Your task to perform on an android device: turn off translation in the chrome app Image 0: 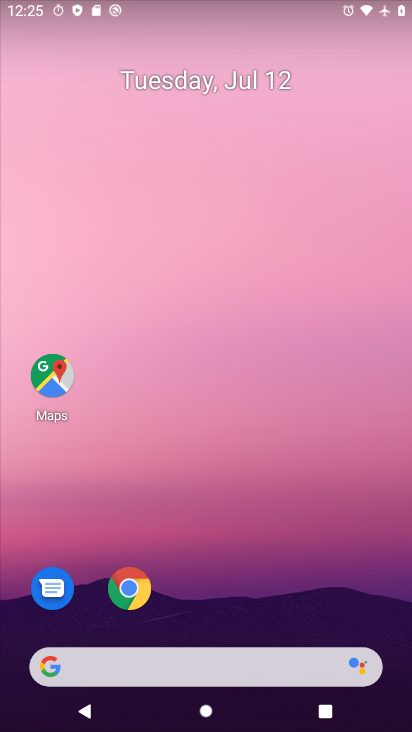
Step 0: press home button
Your task to perform on an android device: turn off translation in the chrome app Image 1: 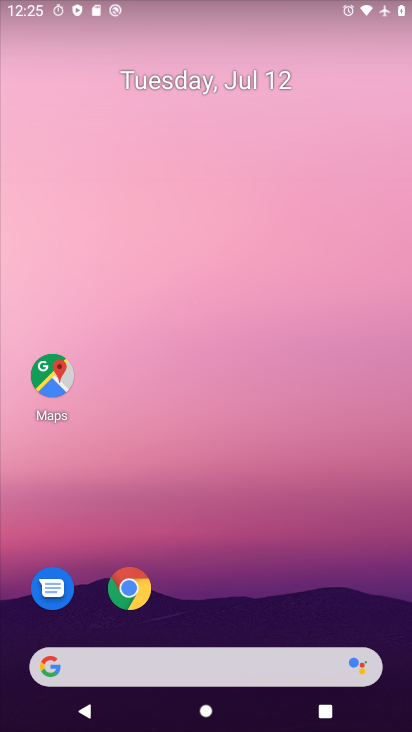
Step 1: click (128, 590)
Your task to perform on an android device: turn off translation in the chrome app Image 2: 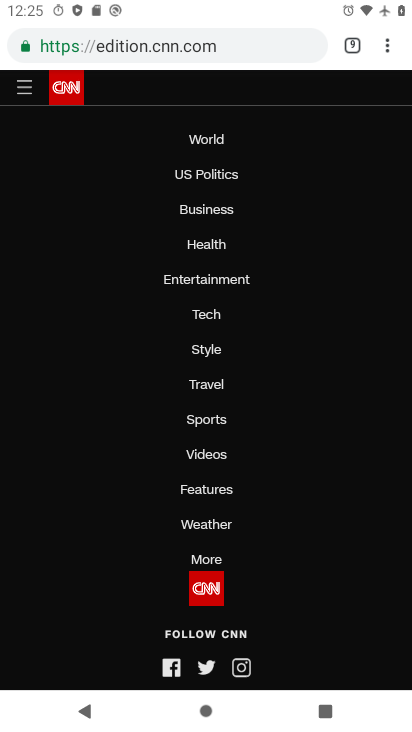
Step 2: drag from (386, 49) to (267, 544)
Your task to perform on an android device: turn off translation in the chrome app Image 3: 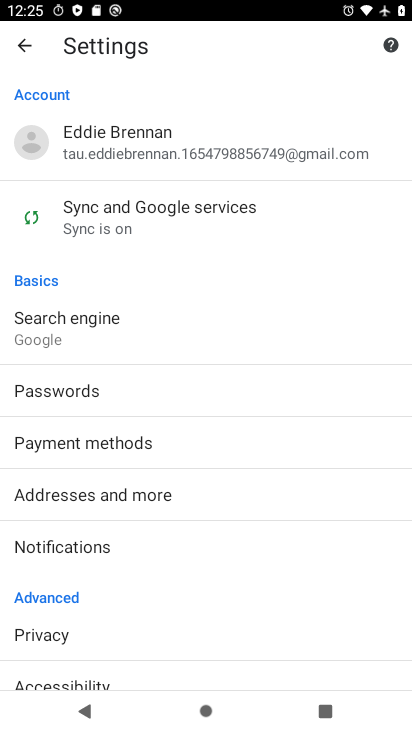
Step 3: drag from (148, 602) to (193, 193)
Your task to perform on an android device: turn off translation in the chrome app Image 4: 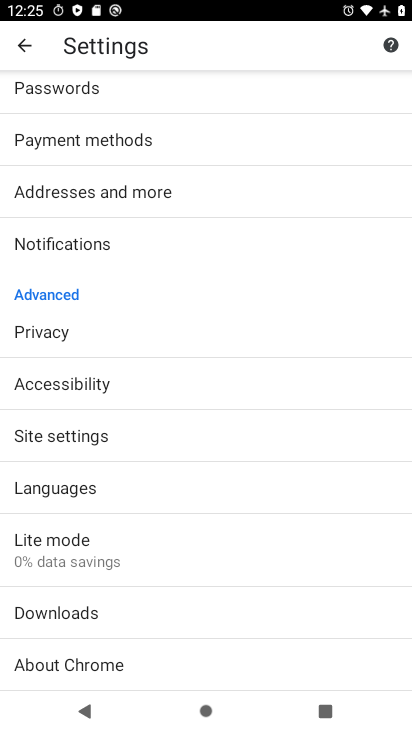
Step 4: click (79, 492)
Your task to perform on an android device: turn off translation in the chrome app Image 5: 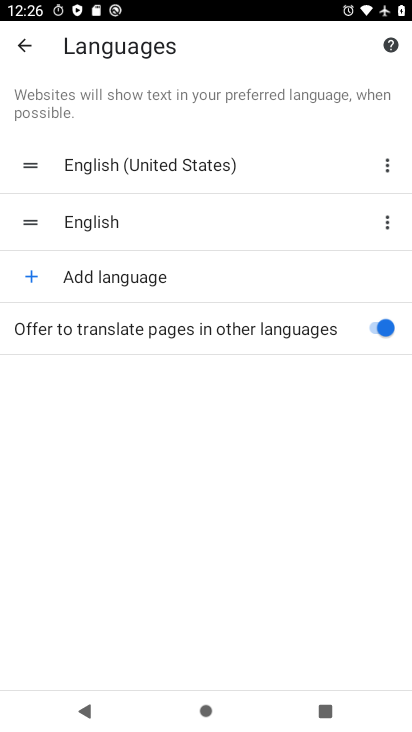
Step 5: click (376, 327)
Your task to perform on an android device: turn off translation in the chrome app Image 6: 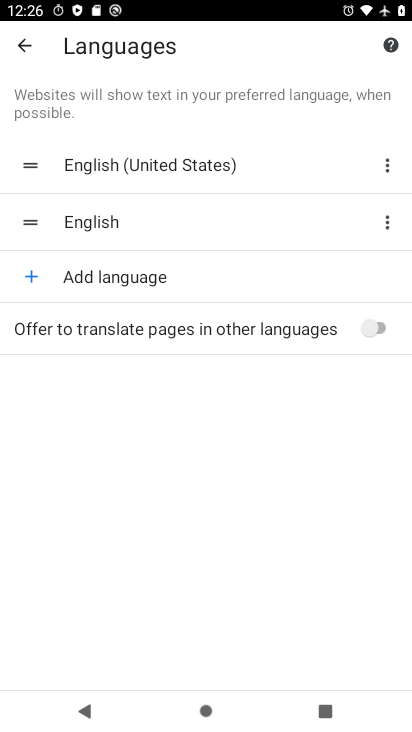
Step 6: task complete